Your task to perform on an android device: turn off airplane mode Image 0: 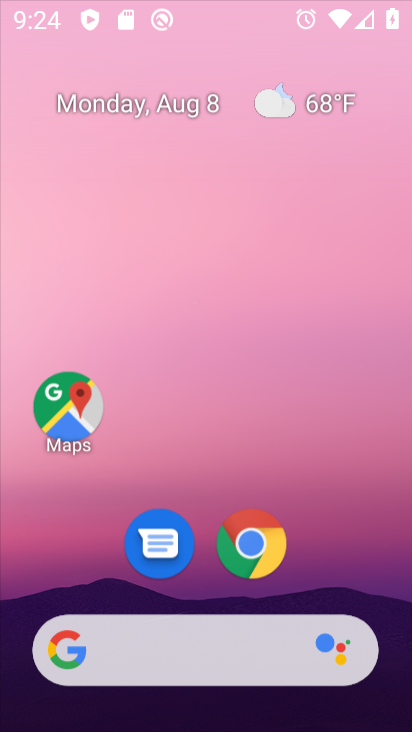
Step 0: press home button
Your task to perform on an android device: turn off airplane mode Image 1: 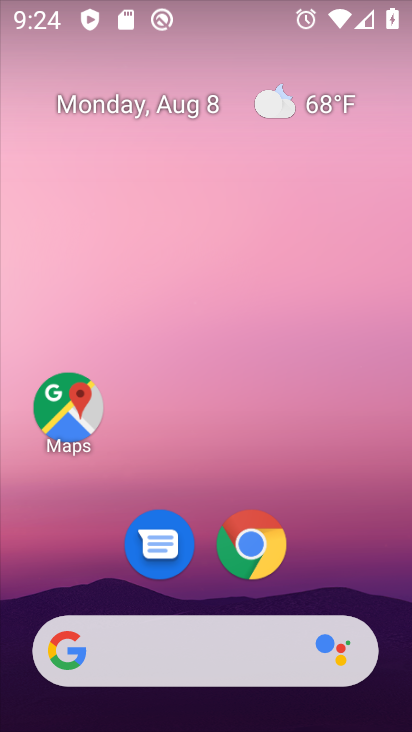
Step 1: task complete